Your task to perform on an android device: What's the weather going to be tomorrow? Image 0: 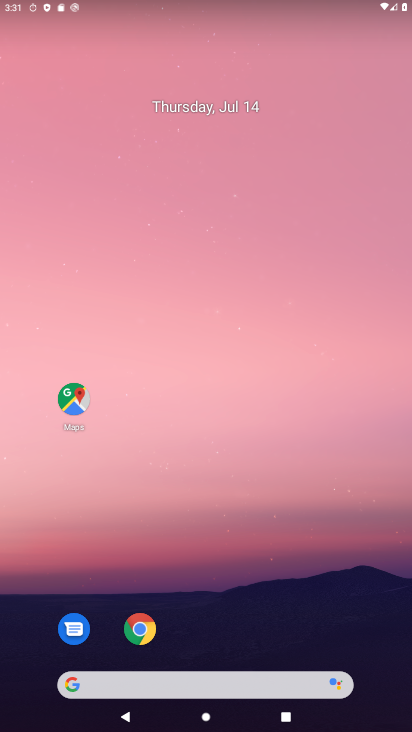
Step 0: drag from (268, 594) to (322, 95)
Your task to perform on an android device: What's the weather going to be tomorrow? Image 1: 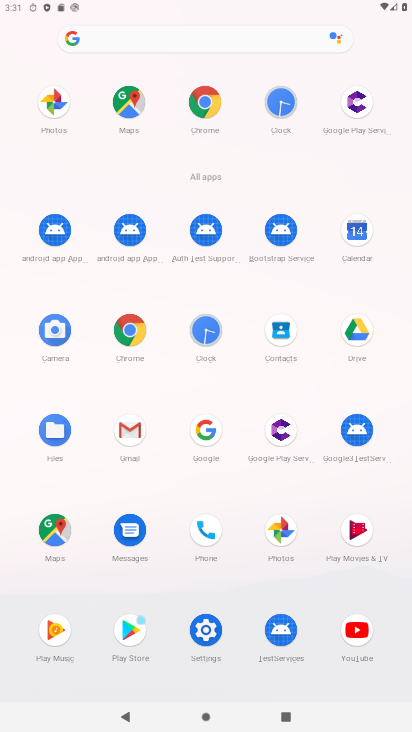
Step 1: click (131, 333)
Your task to perform on an android device: What's the weather going to be tomorrow? Image 2: 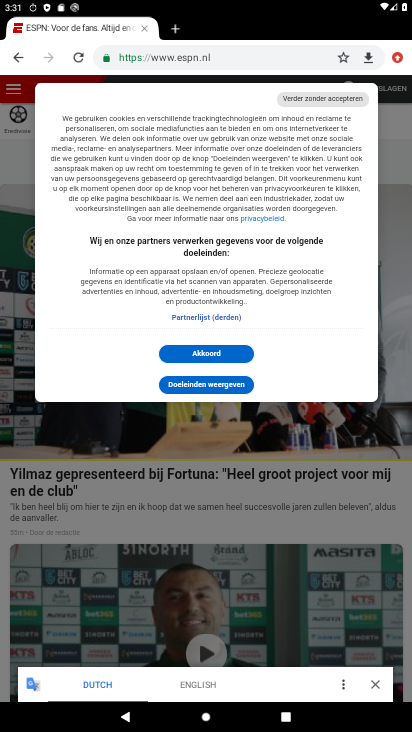
Step 2: click (210, 57)
Your task to perform on an android device: What's the weather going to be tomorrow? Image 3: 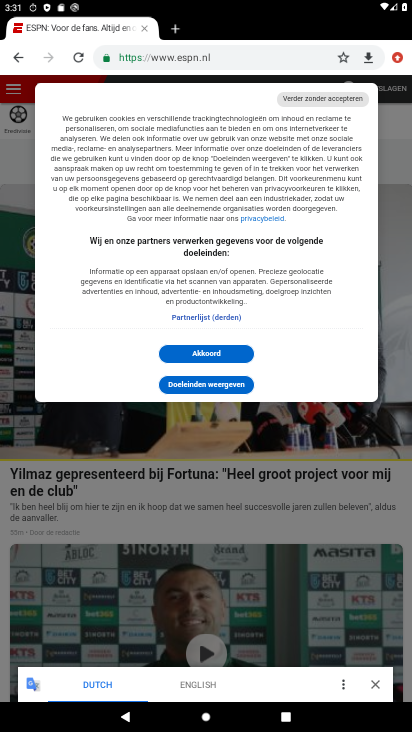
Step 3: click (210, 57)
Your task to perform on an android device: What's the weather going to be tomorrow? Image 4: 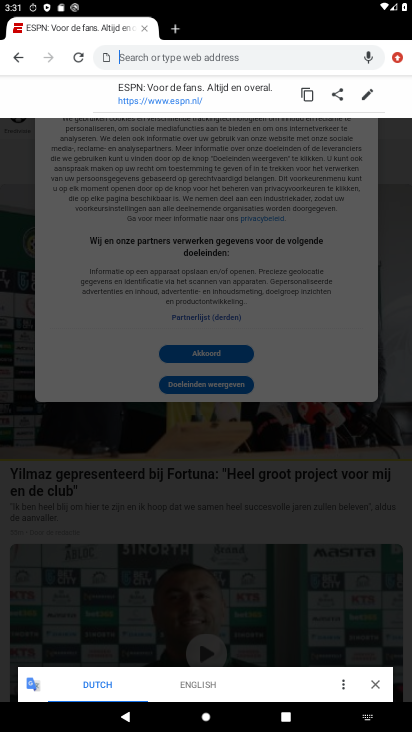
Step 4: type "What's the weather going to be tomorrow?"
Your task to perform on an android device: What's the weather going to be tomorrow? Image 5: 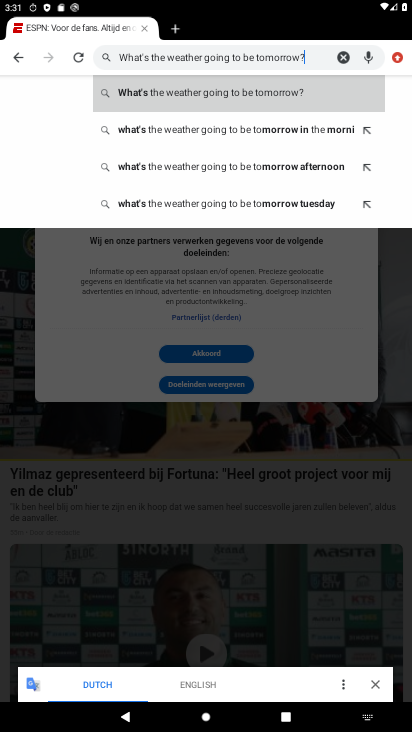
Step 5: click (279, 90)
Your task to perform on an android device: What's the weather going to be tomorrow? Image 6: 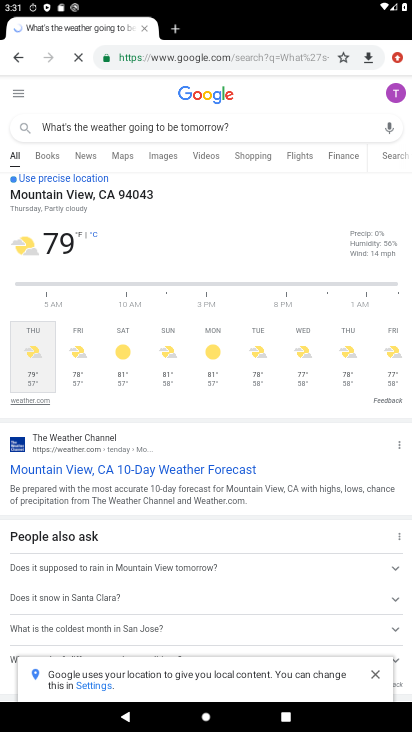
Step 6: task complete